Your task to perform on an android device: Open calendar and show me the second week of next month Image 0: 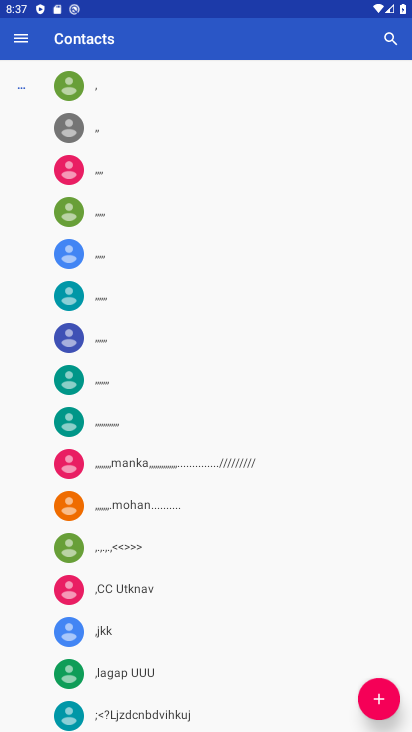
Step 0: press home button
Your task to perform on an android device: Open calendar and show me the second week of next month Image 1: 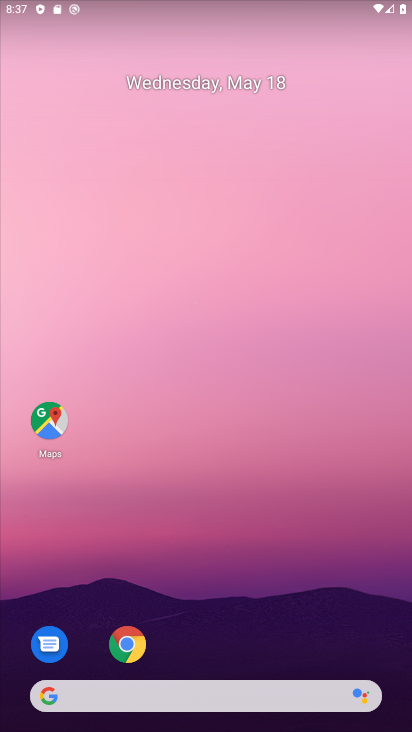
Step 1: drag from (193, 481) to (258, 9)
Your task to perform on an android device: Open calendar and show me the second week of next month Image 2: 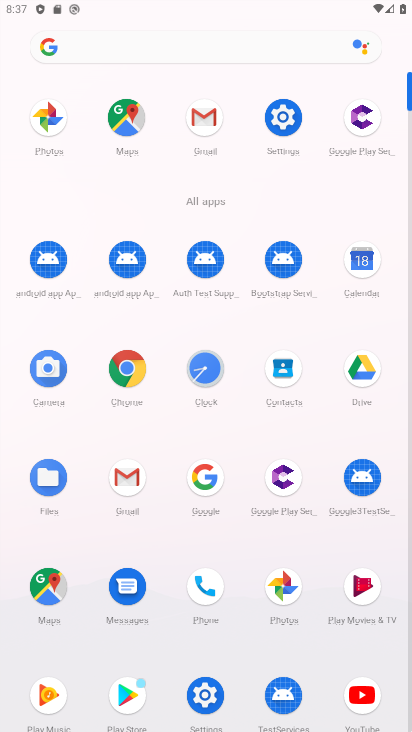
Step 2: click (355, 259)
Your task to perform on an android device: Open calendar and show me the second week of next month Image 3: 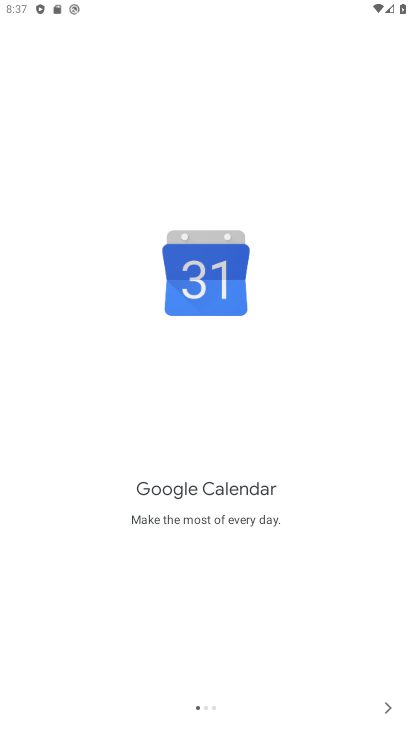
Step 3: click (393, 714)
Your task to perform on an android device: Open calendar and show me the second week of next month Image 4: 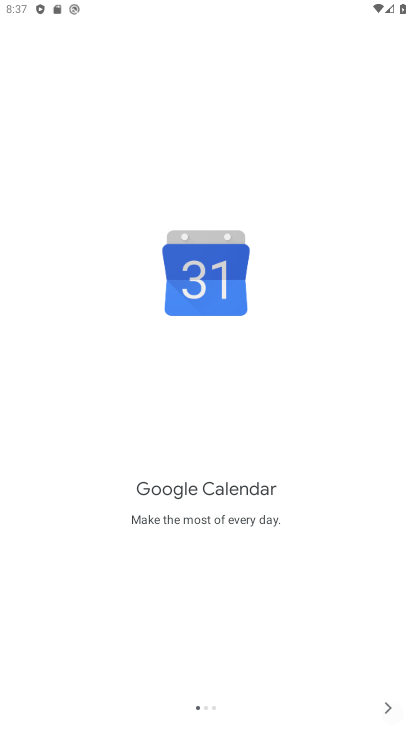
Step 4: click (393, 714)
Your task to perform on an android device: Open calendar and show me the second week of next month Image 5: 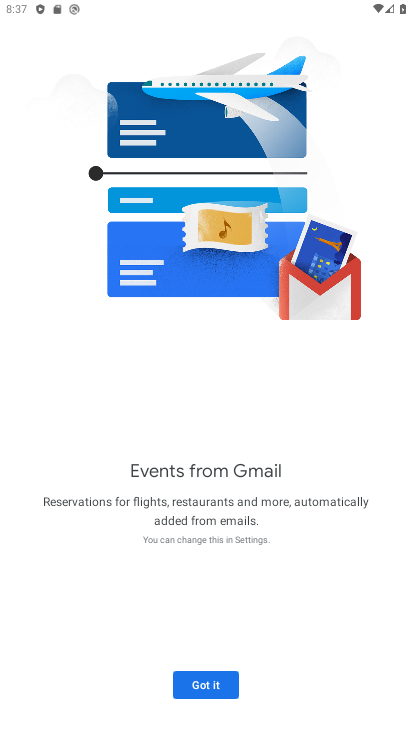
Step 5: click (207, 686)
Your task to perform on an android device: Open calendar and show me the second week of next month Image 6: 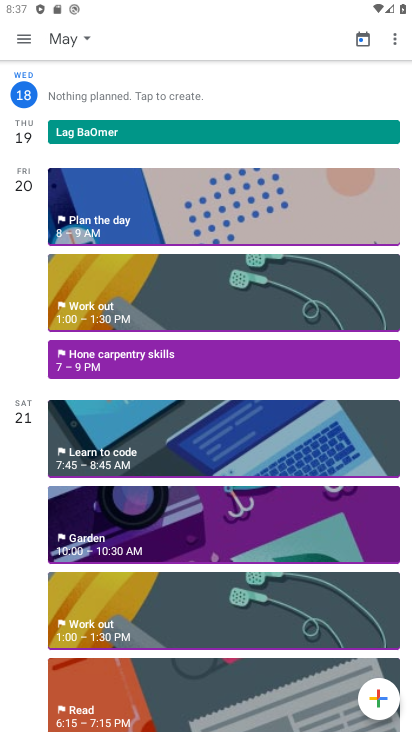
Step 6: click (78, 35)
Your task to perform on an android device: Open calendar and show me the second week of next month Image 7: 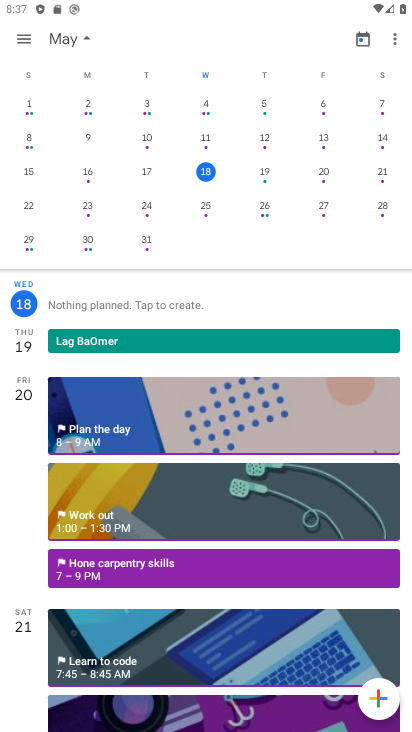
Step 7: drag from (392, 212) to (13, 104)
Your task to perform on an android device: Open calendar and show me the second week of next month Image 8: 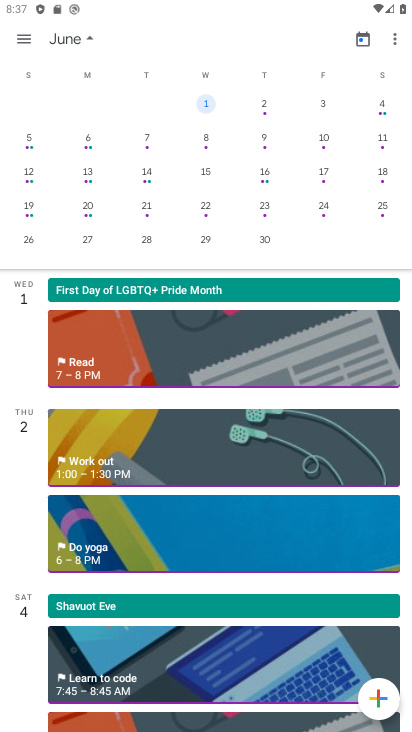
Step 8: click (84, 35)
Your task to perform on an android device: Open calendar and show me the second week of next month Image 9: 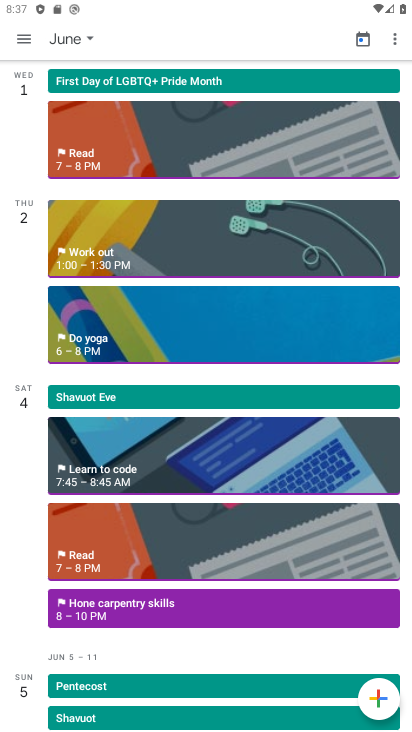
Step 9: click (22, 37)
Your task to perform on an android device: Open calendar and show me the second week of next month Image 10: 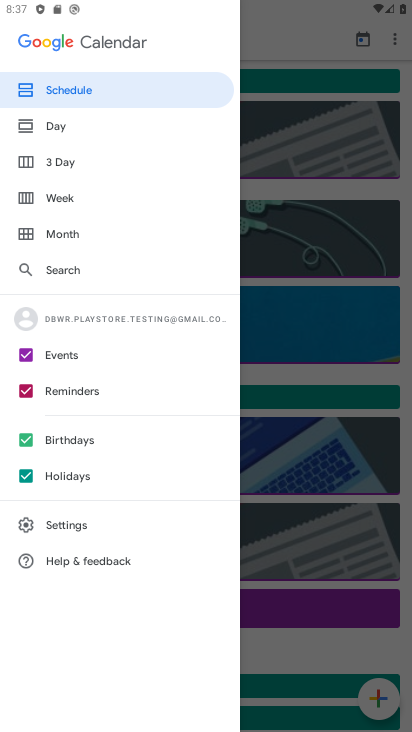
Step 10: click (69, 206)
Your task to perform on an android device: Open calendar and show me the second week of next month Image 11: 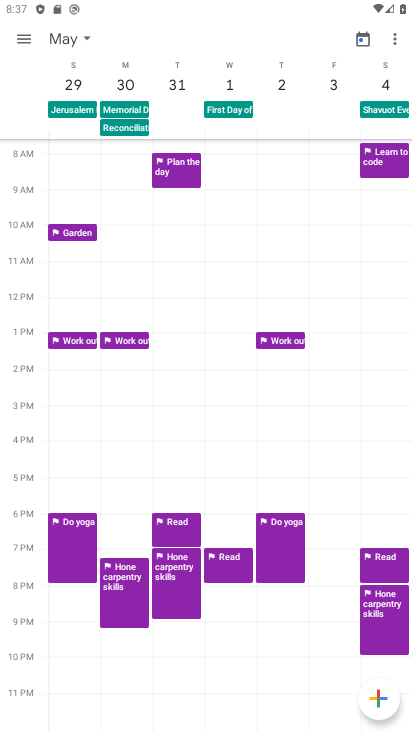
Step 11: task complete